Your task to perform on an android device: see tabs open on other devices in the chrome app Image 0: 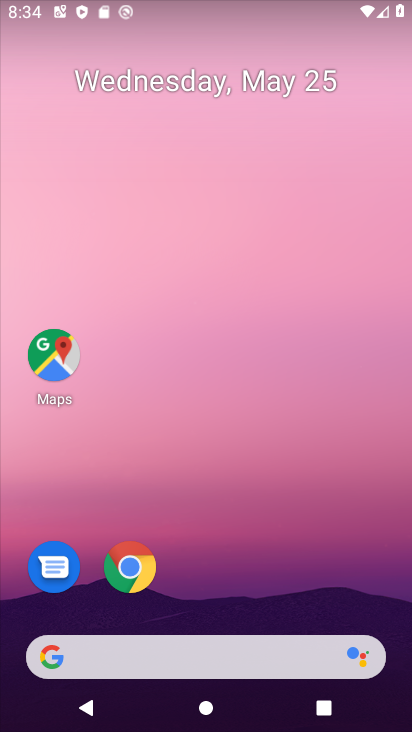
Step 0: click (118, 557)
Your task to perform on an android device: see tabs open on other devices in the chrome app Image 1: 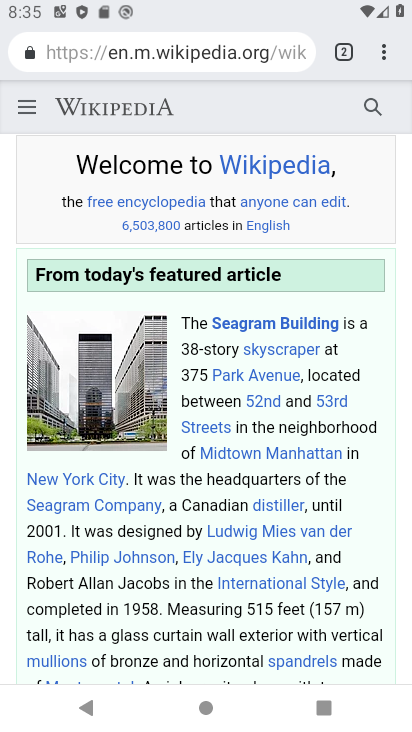
Step 1: task complete